Your task to perform on an android device: turn on notifications settings in the gmail app Image 0: 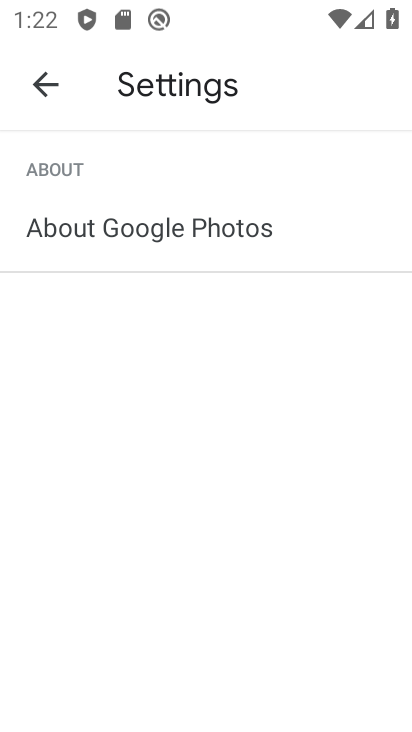
Step 0: press home button
Your task to perform on an android device: turn on notifications settings in the gmail app Image 1: 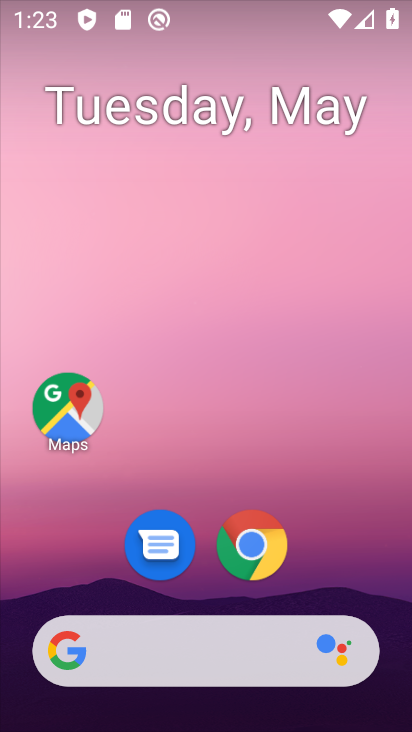
Step 1: drag from (388, 610) to (333, 87)
Your task to perform on an android device: turn on notifications settings in the gmail app Image 2: 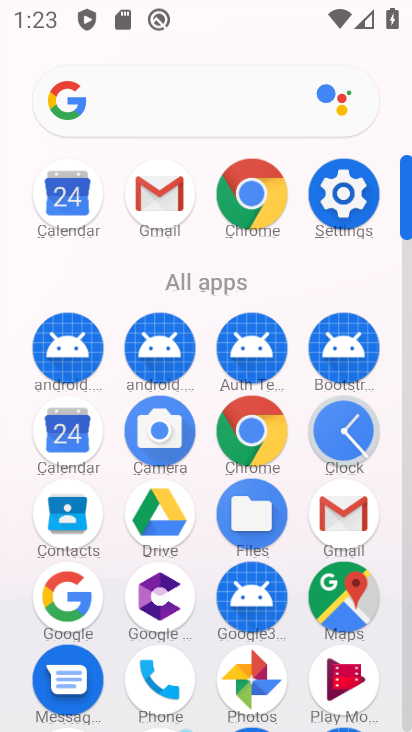
Step 2: click (340, 508)
Your task to perform on an android device: turn on notifications settings in the gmail app Image 3: 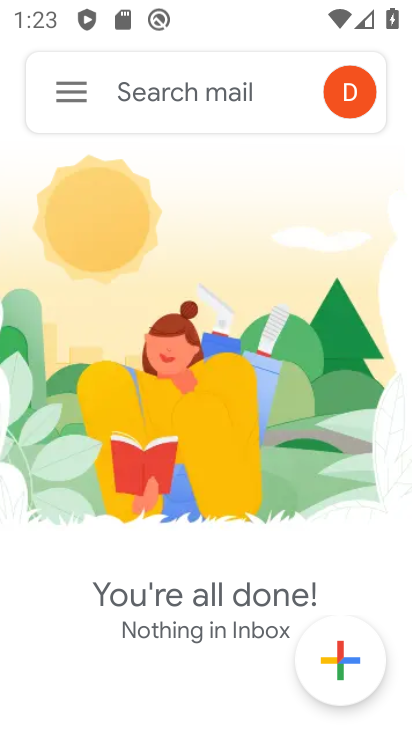
Step 3: click (72, 94)
Your task to perform on an android device: turn on notifications settings in the gmail app Image 4: 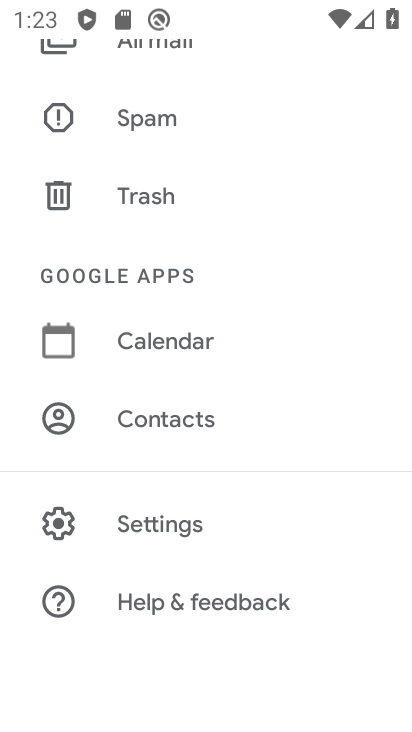
Step 4: click (181, 524)
Your task to perform on an android device: turn on notifications settings in the gmail app Image 5: 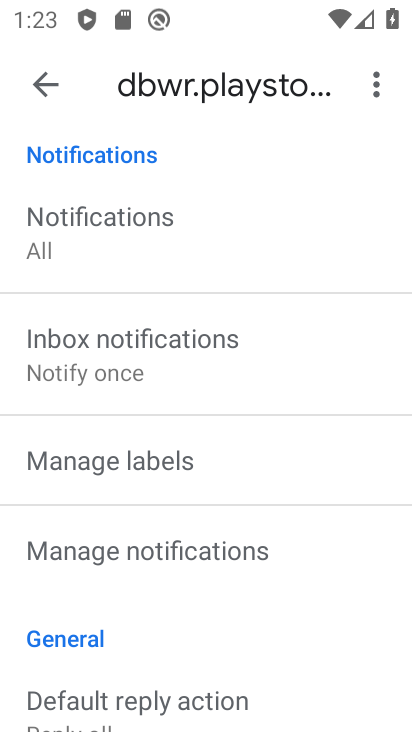
Step 5: click (152, 544)
Your task to perform on an android device: turn on notifications settings in the gmail app Image 6: 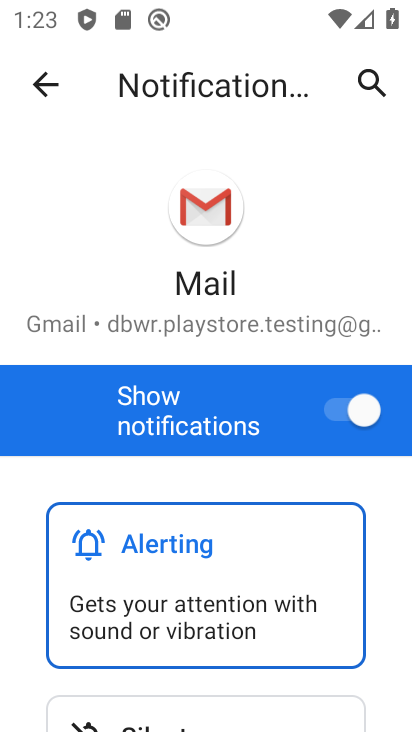
Step 6: task complete